Your task to perform on an android device: Go to Android settings Image 0: 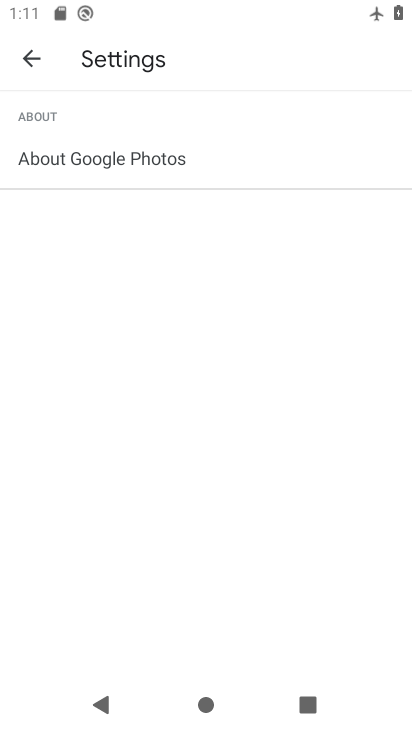
Step 0: press home button
Your task to perform on an android device: Go to Android settings Image 1: 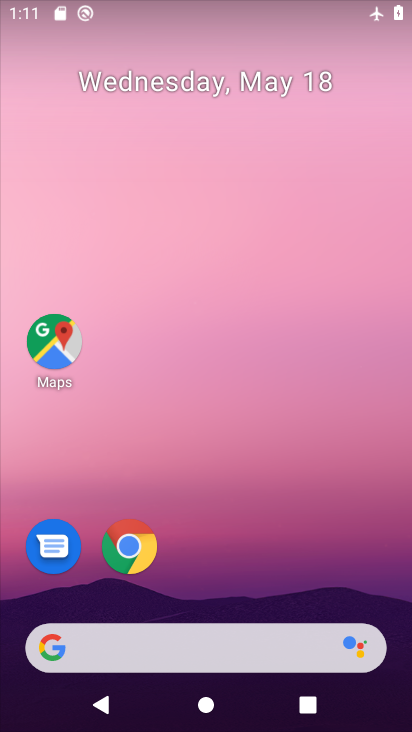
Step 1: drag from (199, 587) to (227, 202)
Your task to perform on an android device: Go to Android settings Image 2: 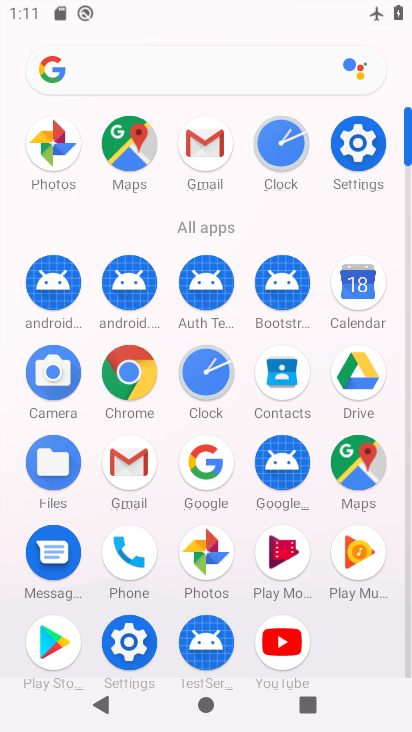
Step 2: click (361, 147)
Your task to perform on an android device: Go to Android settings Image 3: 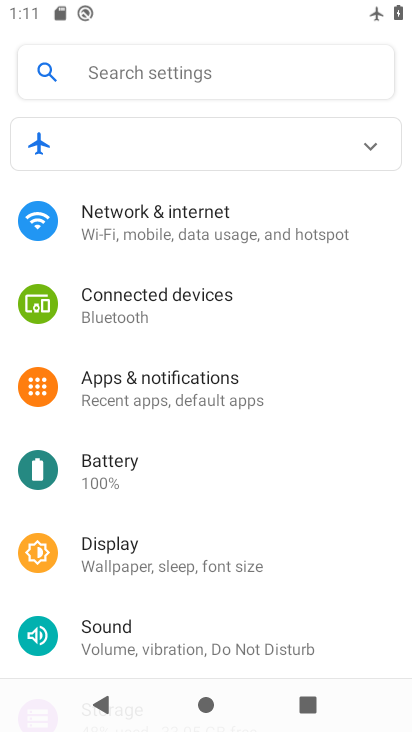
Step 3: drag from (161, 608) to (178, 179)
Your task to perform on an android device: Go to Android settings Image 4: 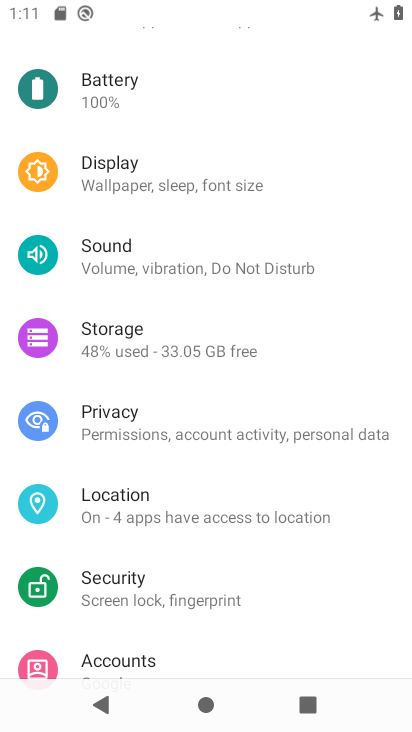
Step 4: drag from (206, 628) to (212, 190)
Your task to perform on an android device: Go to Android settings Image 5: 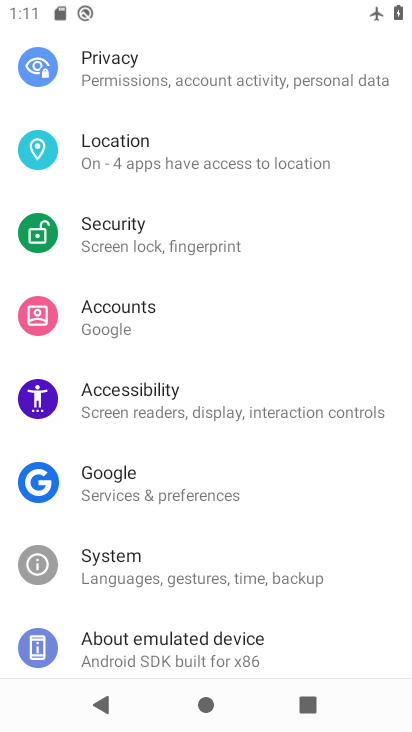
Step 5: drag from (209, 658) to (191, 378)
Your task to perform on an android device: Go to Android settings Image 6: 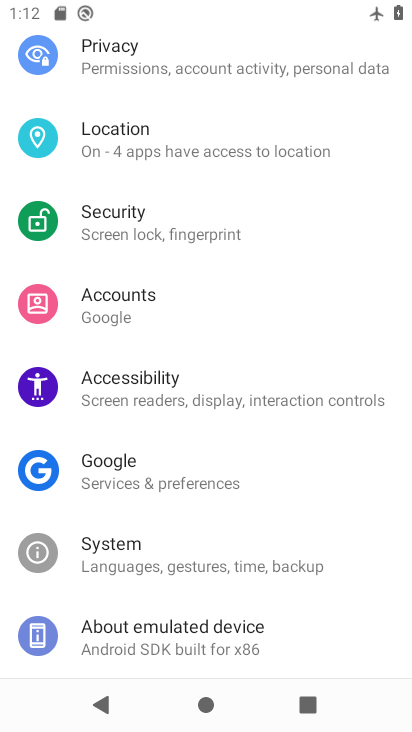
Step 6: click (196, 633)
Your task to perform on an android device: Go to Android settings Image 7: 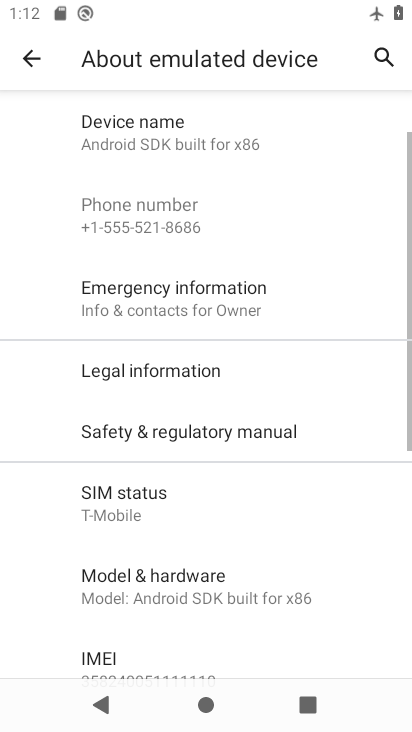
Step 7: task complete